Your task to perform on an android device: turn on translation in the chrome app Image 0: 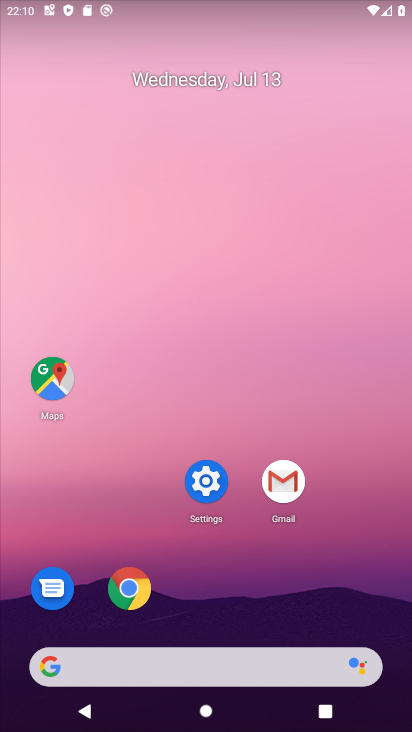
Step 0: click (121, 582)
Your task to perform on an android device: turn on translation in the chrome app Image 1: 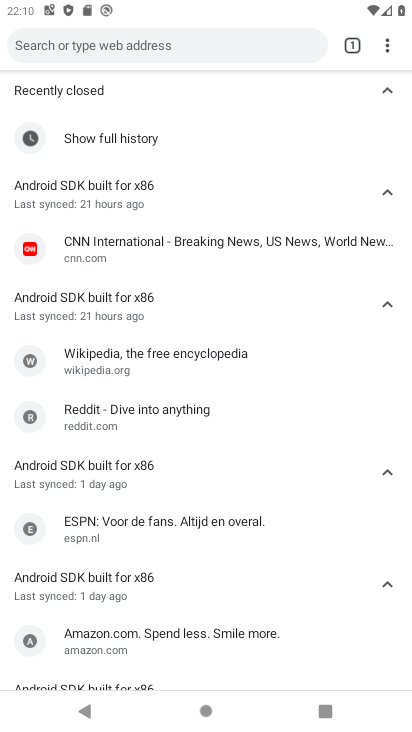
Step 1: click (381, 47)
Your task to perform on an android device: turn on translation in the chrome app Image 2: 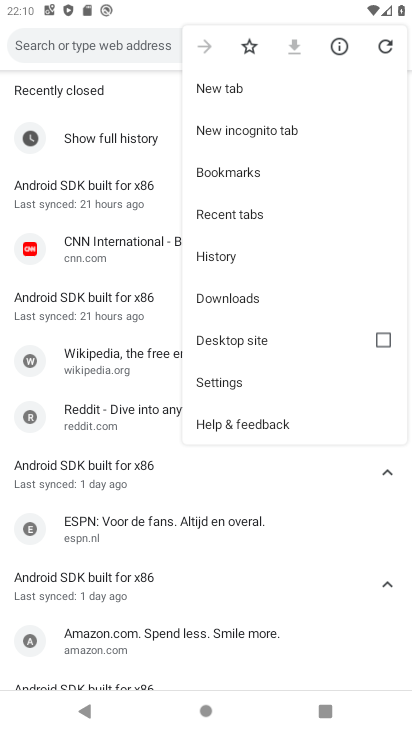
Step 2: click (217, 379)
Your task to perform on an android device: turn on translation in the chrome app Image 3: 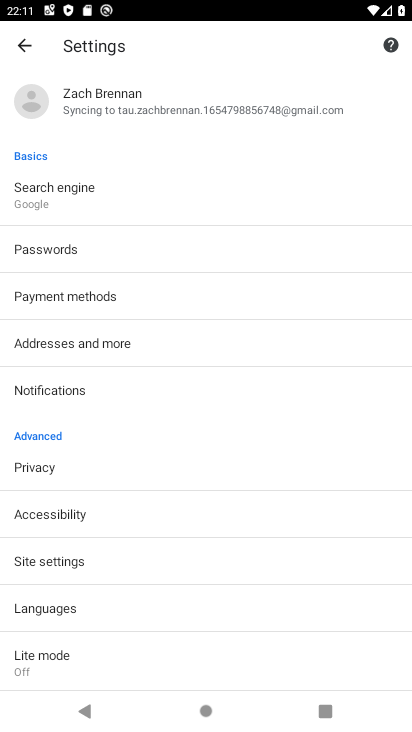
Step 3: click (62, 606)
Your task to perform on an android device: turn on translation in the chrome app Image 4: 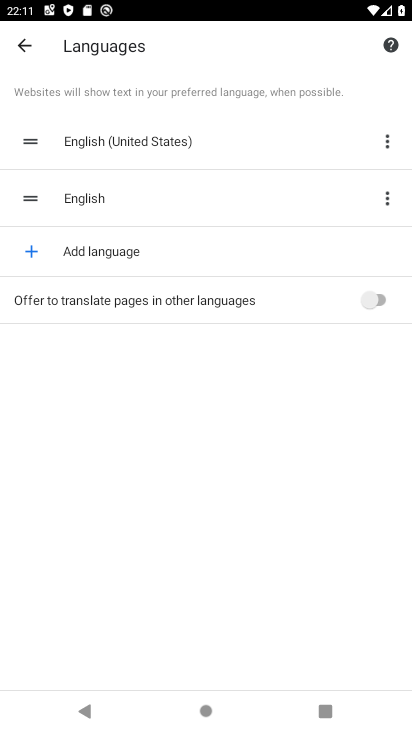
Step 4: click (373, 293)
Your task to perform on an android device: turn on translation in the chrome app Image 5: 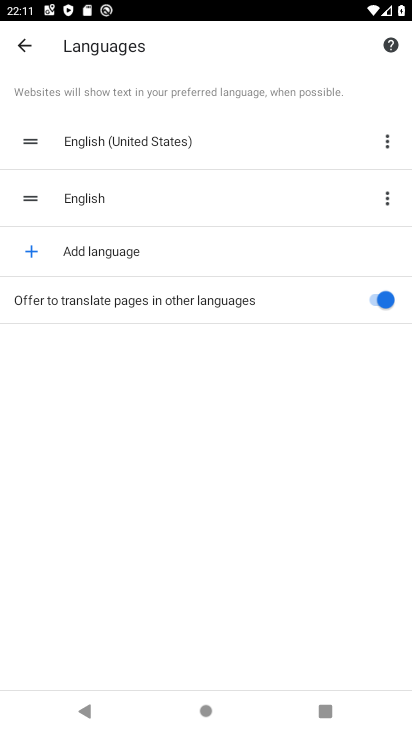
Step 5: task complete